Your task to perform on an android device: visit the assistant section in the google photos Image 0: 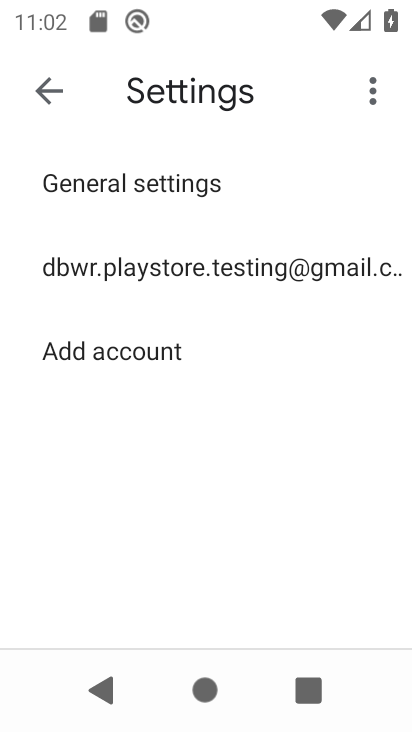
Step 0: press home button
Your task to perform on an android device: visit the assistant section in the google photos Image 1: 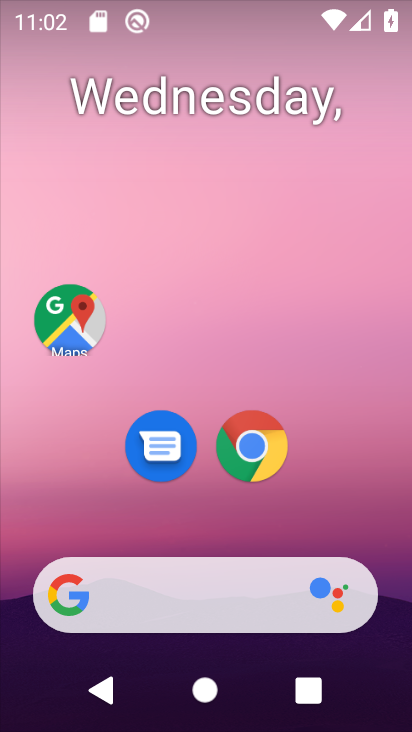
Step 1: drag from (294, 476) to (256, 95)
Your task to perform on an android device: visit the assistant section in the google photos Image 2: 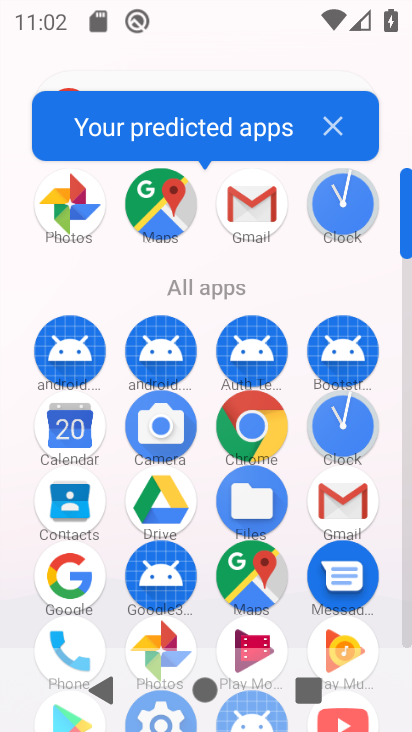
Step 2: click (56, 204)
Your task to perform on an android device: visit the assistant section in the google photos Image 3: 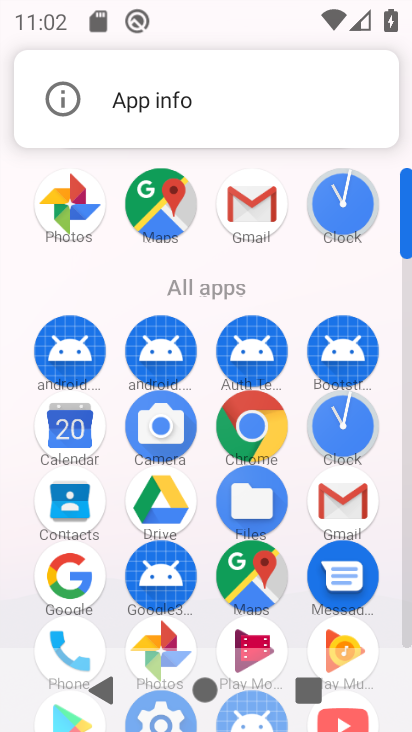
Step 3: click (71, 198)
Your task to perform on an android device: visit the assistant section in the google photos Image 4: 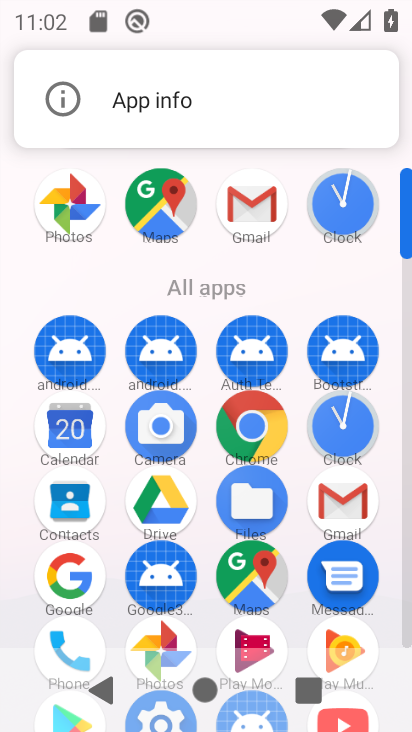
Step 4: click (71, 198)
Your task to perform on an android device: visit the assistant section in the google photos Image 5: 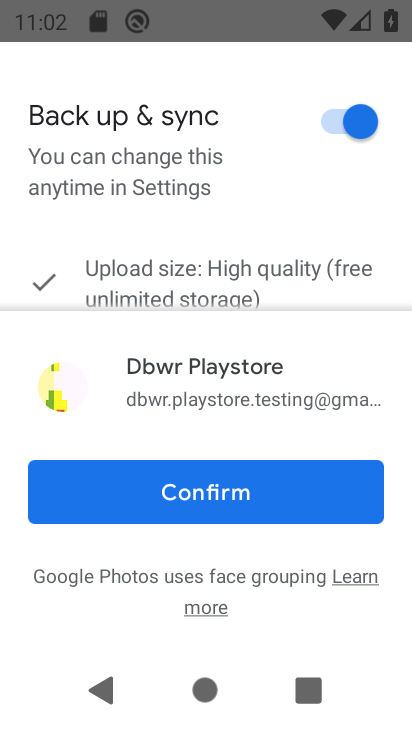
Step 5: click (167, 492)
Your task to perform on an android device: visit the assistant section in the google photos Image 6: 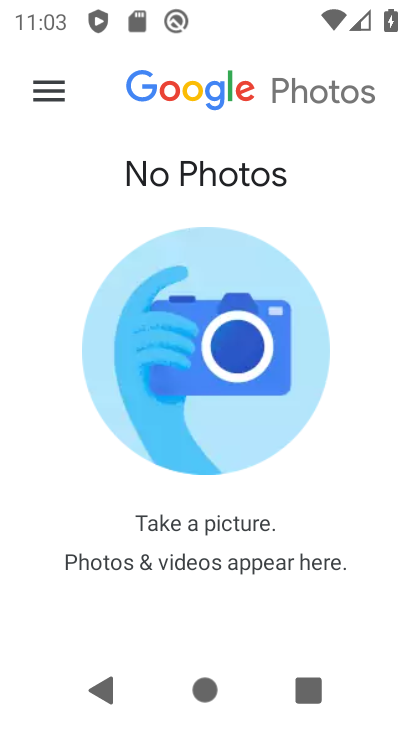
Step 6: drag from (192, 478) to (186, 165)
Your task to perform on an android device: visit the assistant section in the google photos Image 7: 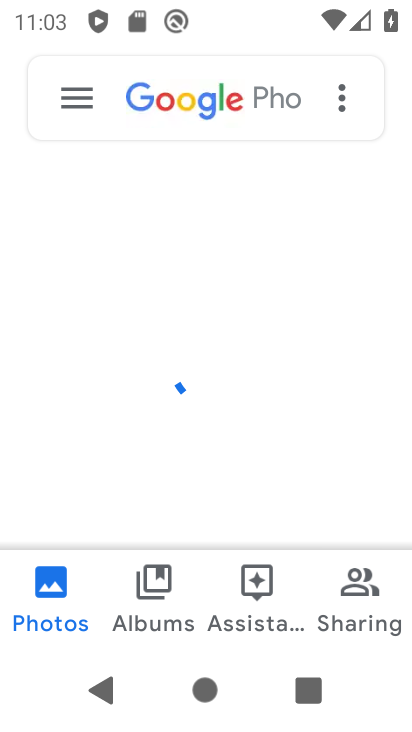
Step 7: click (253, 600)
Your task to perform on an android device: visit the assistant section in the google photos Image 8: 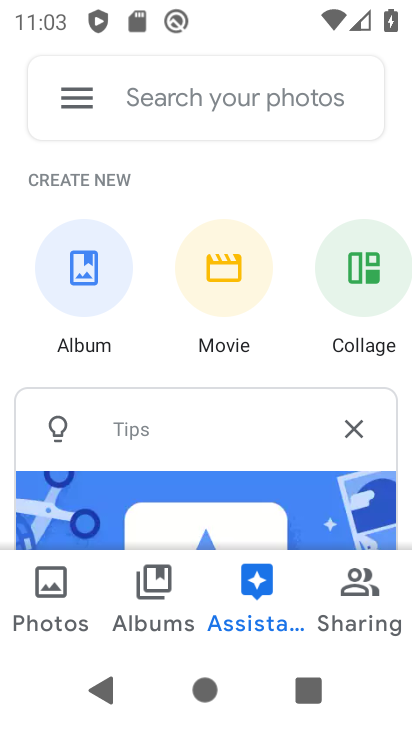
Step 8: task complete